Your task to perform on an android device: visit the assistant section in the google photos Image 0: 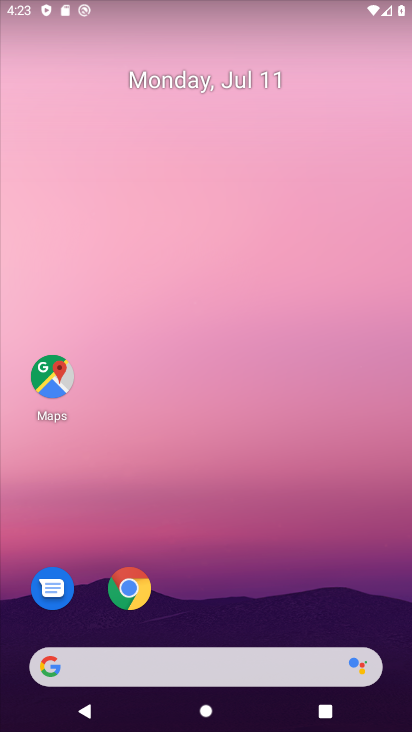
Step 0: drag from (29, 702) to (350, 13)
Your task to perform on an android device: visit the assistant section in the google photos Image 1: 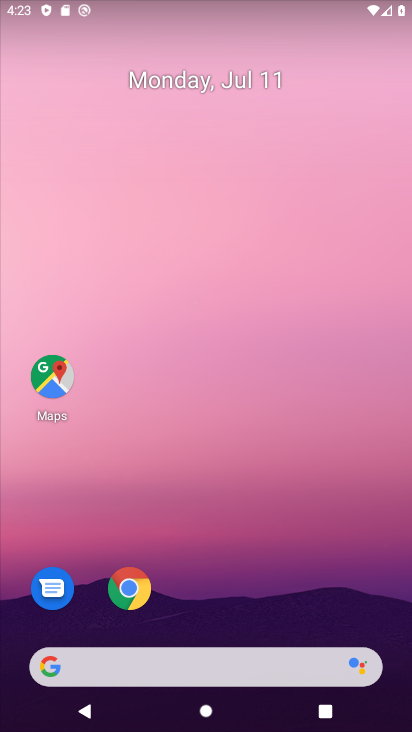
Step 1: drag from (1, 712) to (355, 5)
Your task to perform on an android device: visit the assistant section in the google photos Image 2: 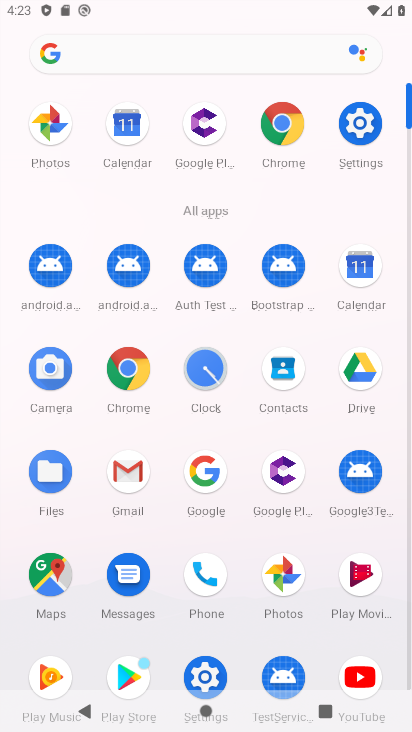
Step 2: click (278, 581)
Your task to perform on an android device: visit the assistant section in the google photos Image 3: 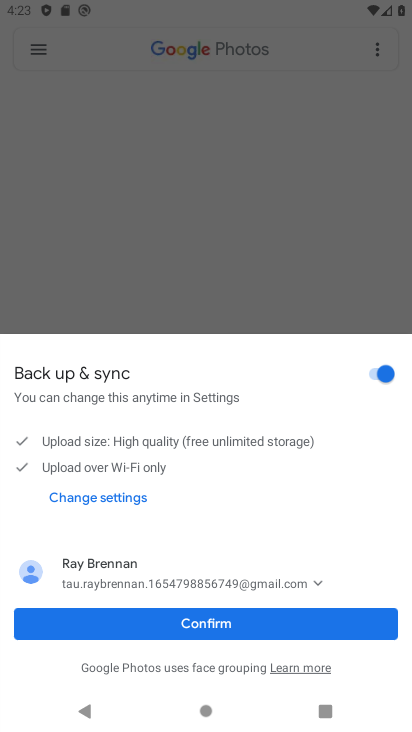
Step 3: click (171, 629)
Your task to perform on an android device: visit the assistant section in the google photos Image 4: 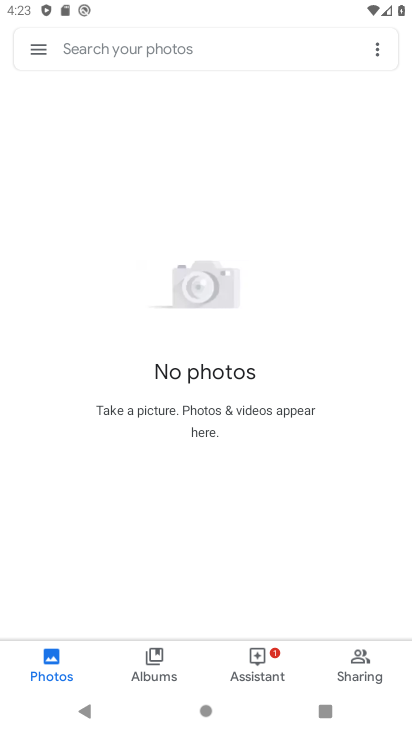
Step 4: click (248, 658)
Your task to perform on an android device: visit the assistant section in the google photos Image 5: 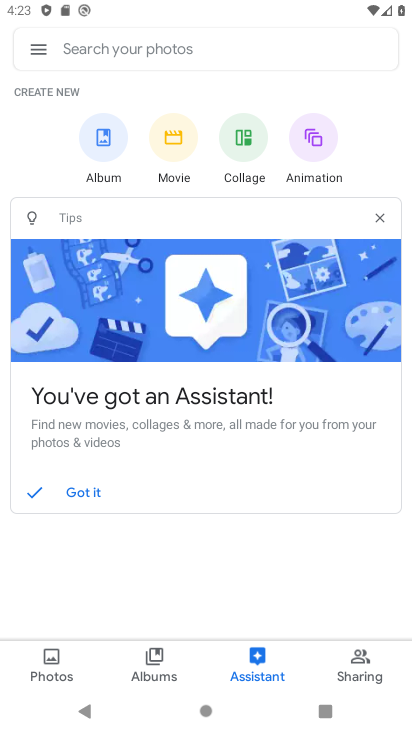
Step 5: task complete